Your task to perform on an android device: check out phone information Image 0: 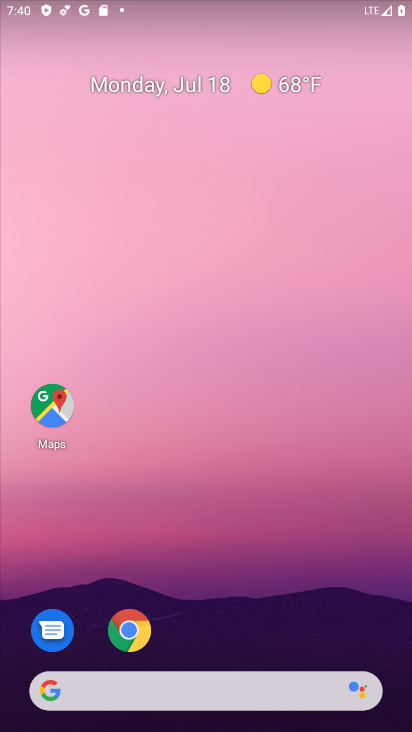
Step 0: drag from (234, 647) to (253, 113)
Your task to perform on an android device: check out phone information Image 1: 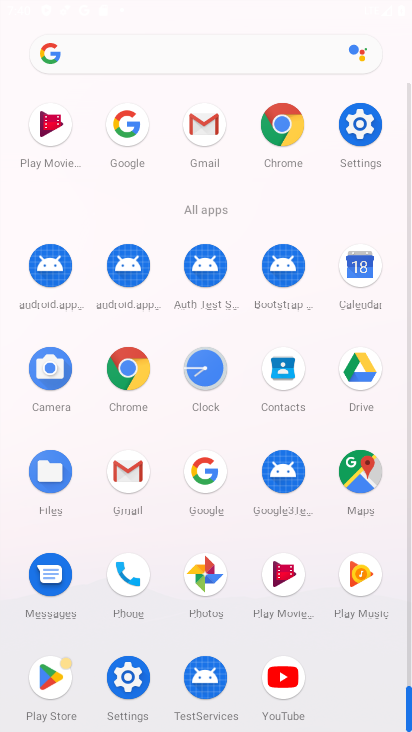
Step 1: click (367, 141)
Your task to perform on an android device: check out phone information Image 2: 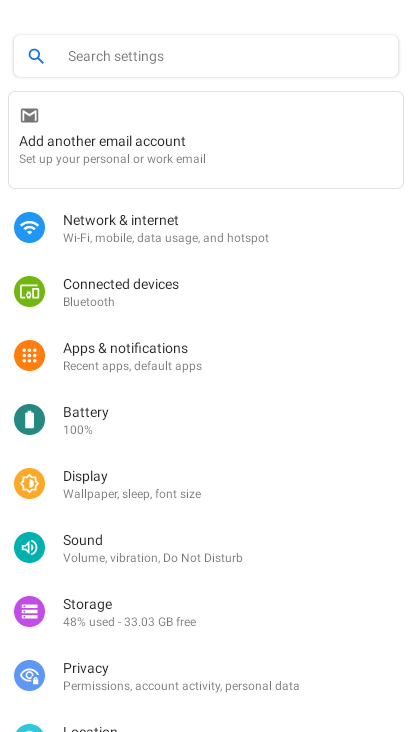
Step 2: drag from (174, 533) to (249, 33)
Your task to perform on an android device: check out phone information Image 3: 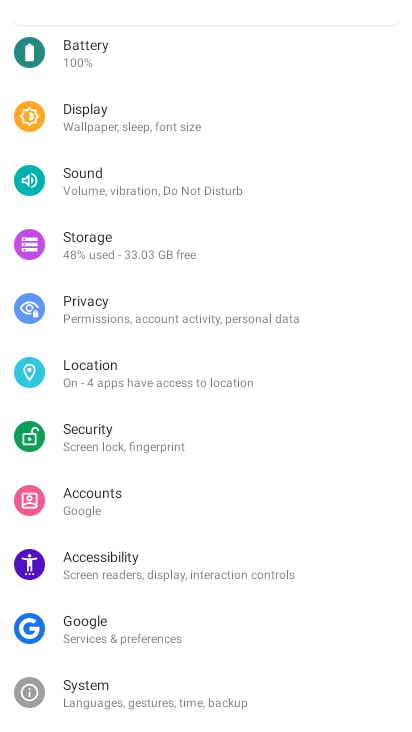
Step 3: drag from (147, 591) to (309, 64)
Your task to perform on an android device: check out phone information Image 4: 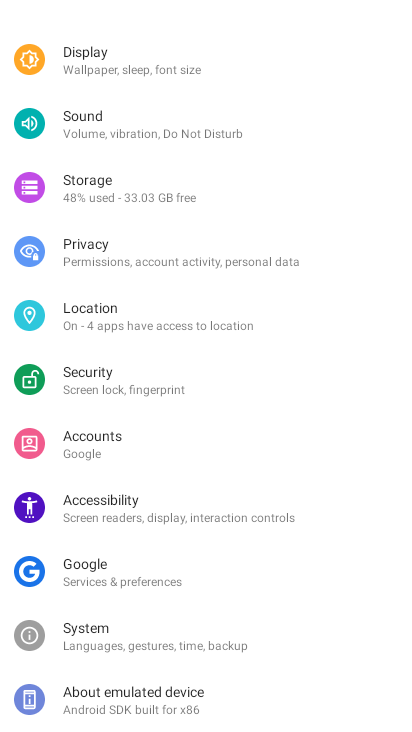
Step 4: click (181, 715)
Your task to perform on an android device: check out phone information Image 5: 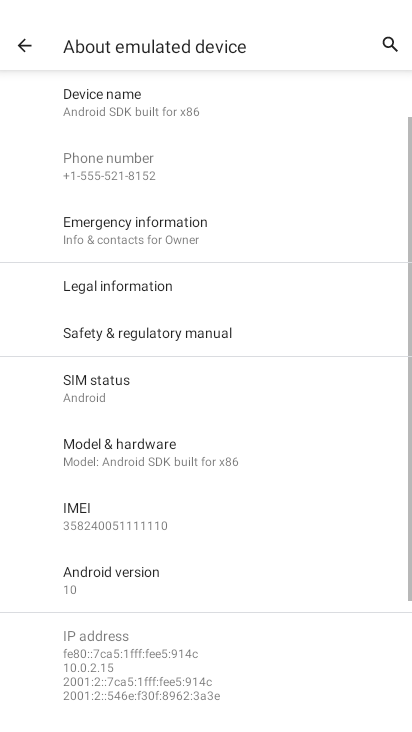
Step 5: task complete